Your task to perform on an android device: snooze an email in the gmail app Image 0: 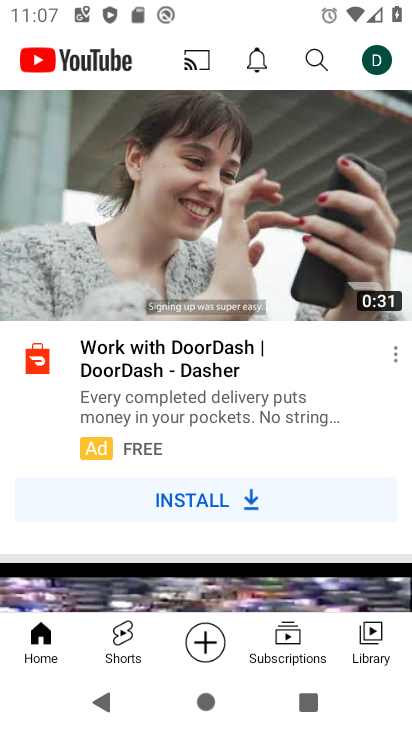
Step 0: press home button
Your task to perform on an android device: snooze an email in the gmail app Image 1: 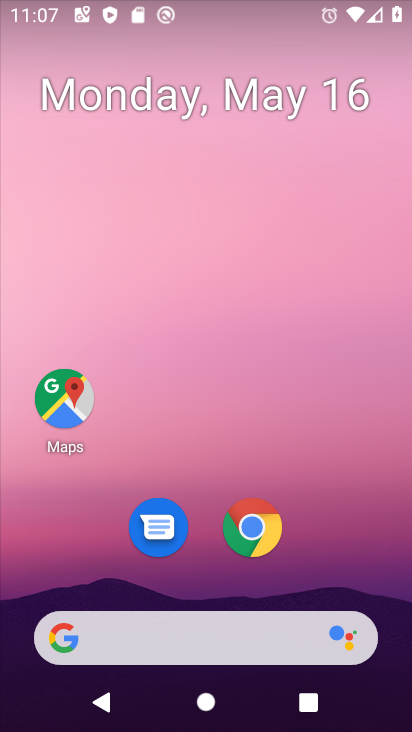
Step 1: drag from (351, 589) to (390, 29)
Your task to perform on an android device: snooze an email in the gmail app Image 2: 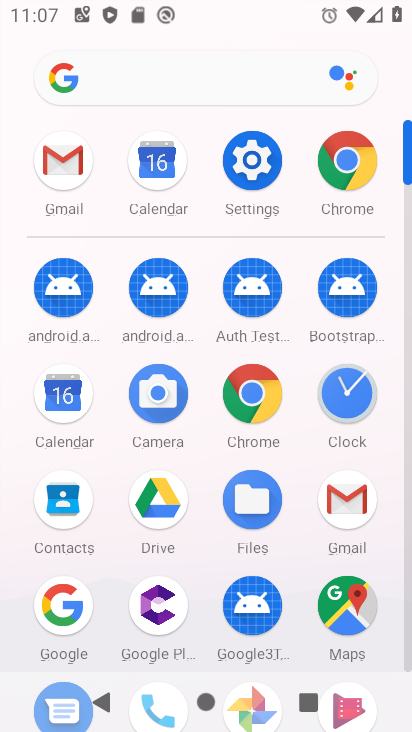
Step 2: click (50, 176)
Your task to perform on an android device: snooze an email in the gmail app Image 3: 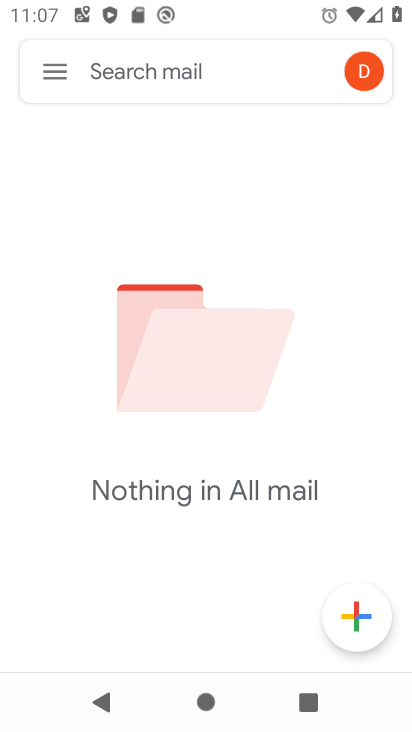
Step 3: task complete